Your task to perform on an android device: turn off picture-in-picture Image 0: 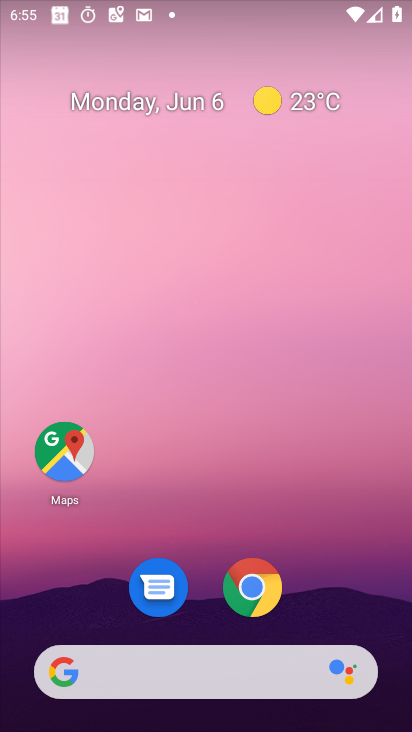
Step 0: drag from (384, 650) to (262, 28)
Your task to perform on an android device: turn off picture-in-picture Image 1: 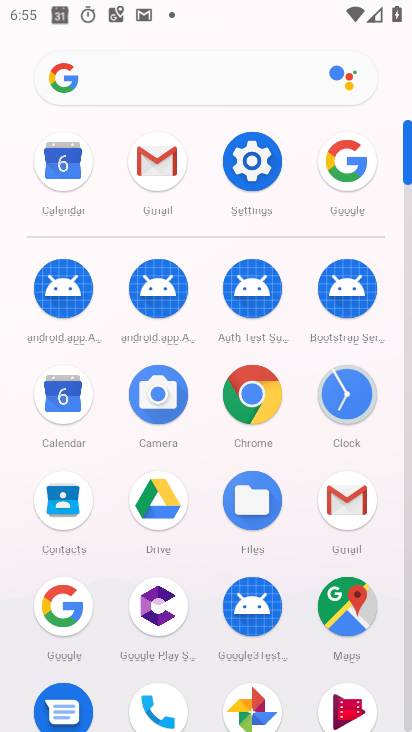
Step 1: click (229, 378)
Your task to perform on an android device: turn off picture-in-picture Image 2: 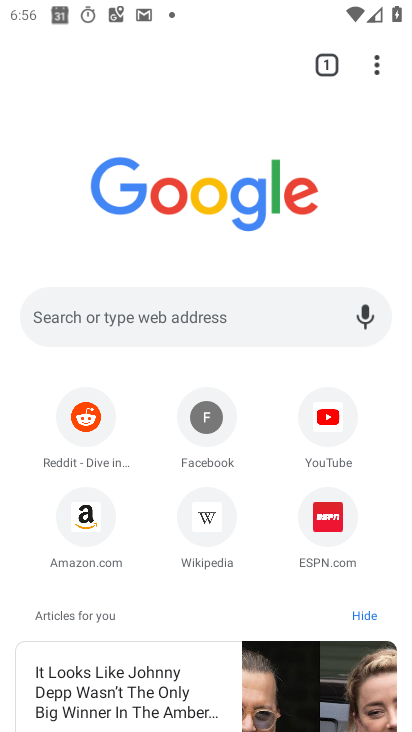
Step 2: task complete